Your task to perform on an android device: check the backup settings in the google photos Image 0: 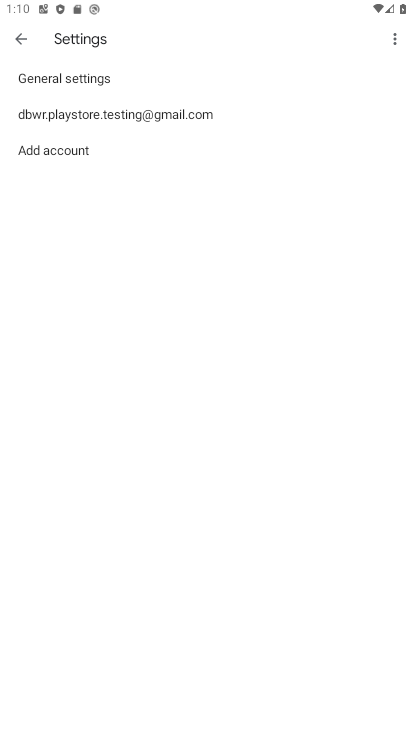
Step 0: press home button
Your task to perform on an android device: check the backup settings in the google photos Image 1: 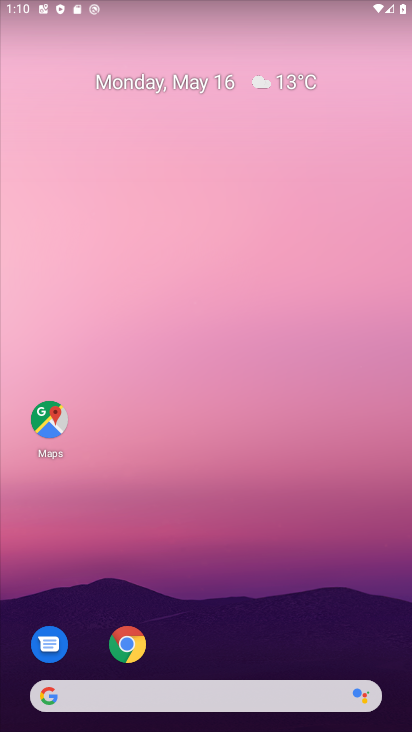
Step 1: drag from (304, 628) to (260, 123)
Your task to perform on an android device: check the backup settings in the google photos Image 2: 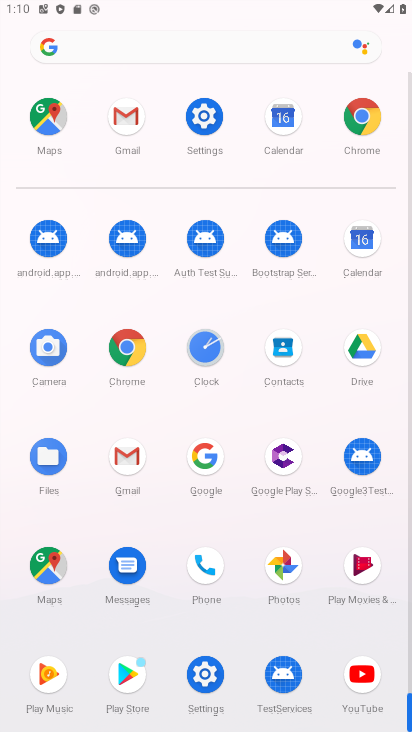
Step 2: click (286, 571)
Your task to perform on an android device: check the backup settings in the google photos Image 3: 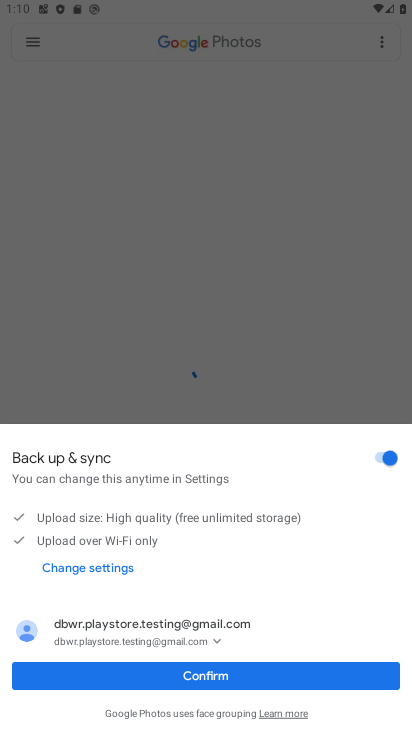
Step 3: click (302, 681)
Your task to perform on an android device: check the backup settings in the google photos Image 4: 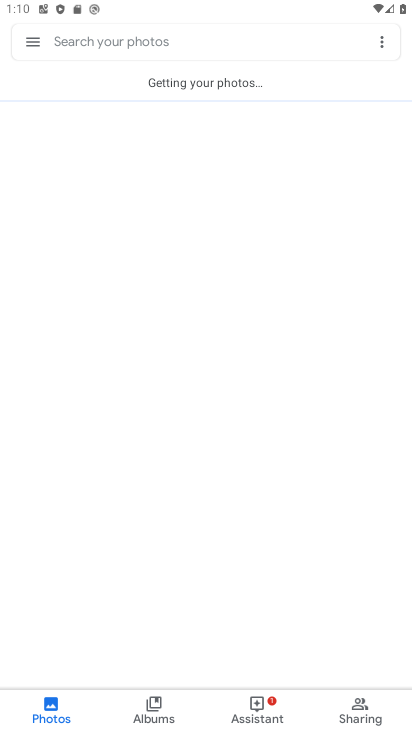
Step 4: click (39, 49)
Your task to perform on an android device: check the backup settings in the google photos Image 5: 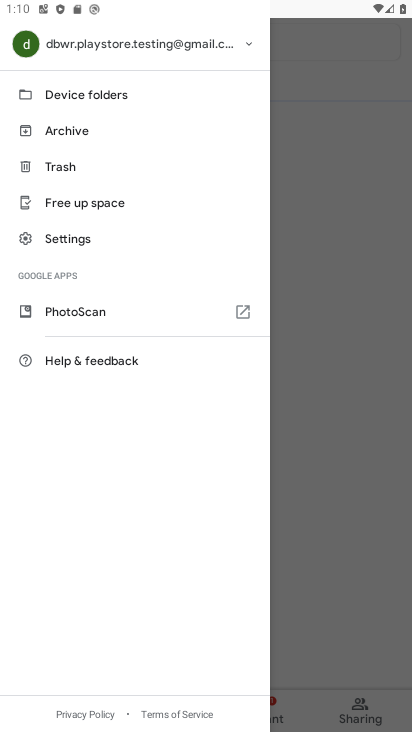
Step 5: click (88, 238)
Your task to perform on an android device: check the backup settings in the google photos Image 6: 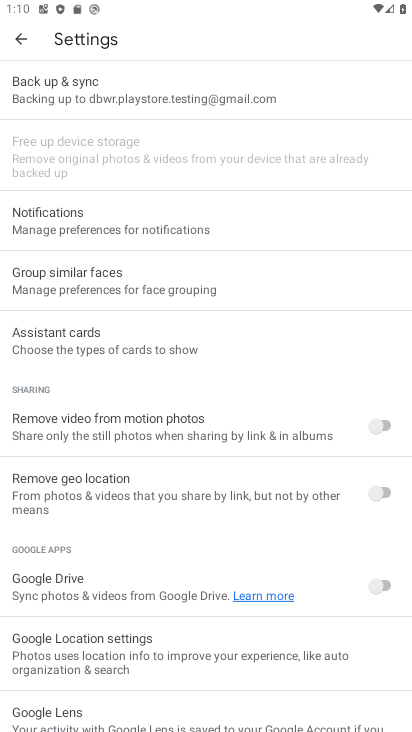
Step 6: drag from (146, 550) to (148, 399)
Your task to perform on an android device: check the backup settings in the google photos Image 7: 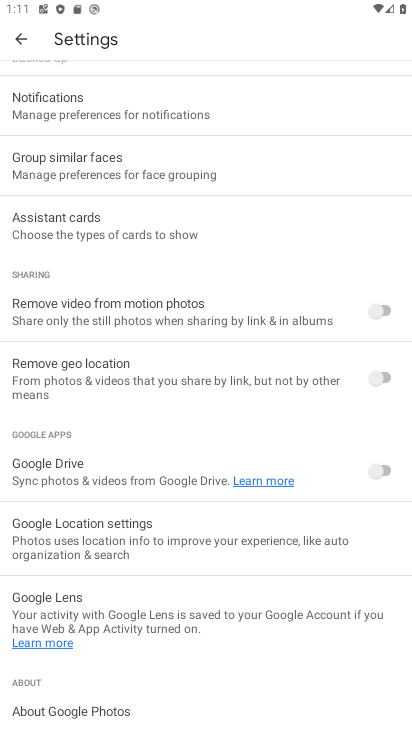
Step 7: drag from (194, 339) to (164, 692)
Your task to perform on an android device: check the backup settings in the google photos Image 8: 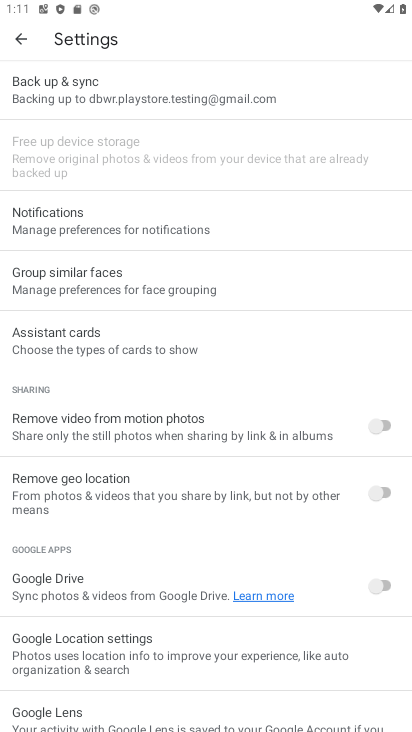
Step 8: drag from (186, 355) to (197, 721)
Your task to perform on an android device: check the backup settings in the google photos Image 9: 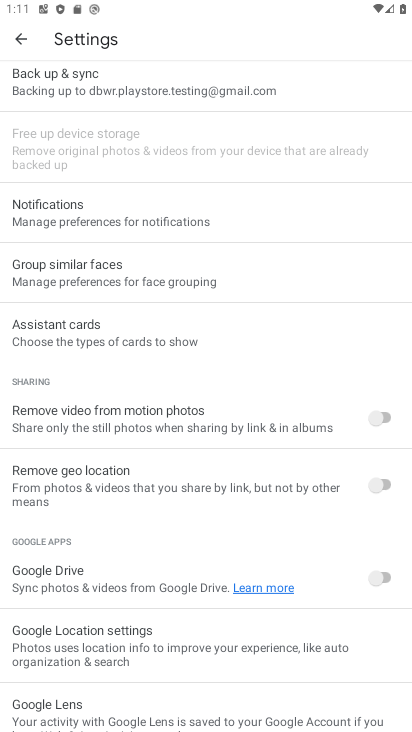
Step 9: click (83, 85)
Your task to perform on an android device: check the backup settings in the google photos Image 10: 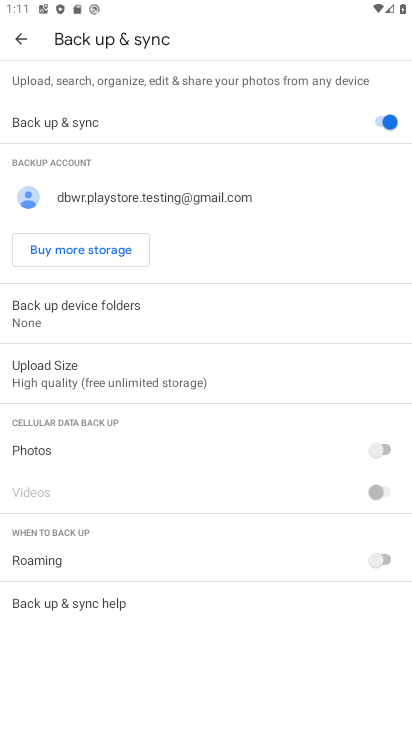
Step 10: task complete